Your task to perform on an android device: visit the assistant section in the google photos Image 0: 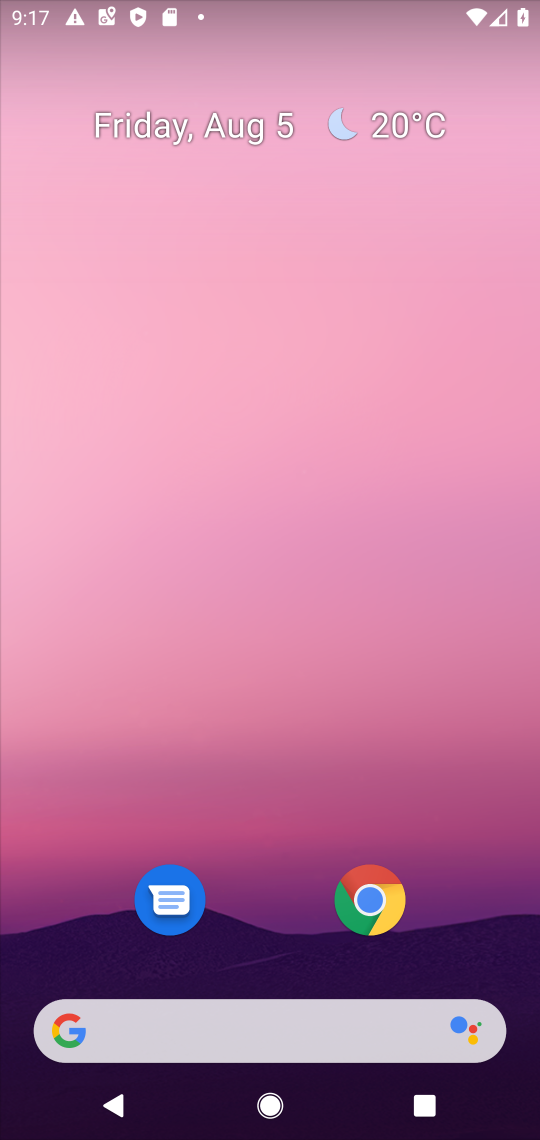
Step 0: press home button
Your task to perform on an android device: visit the assistant section in the google photos Image 1: 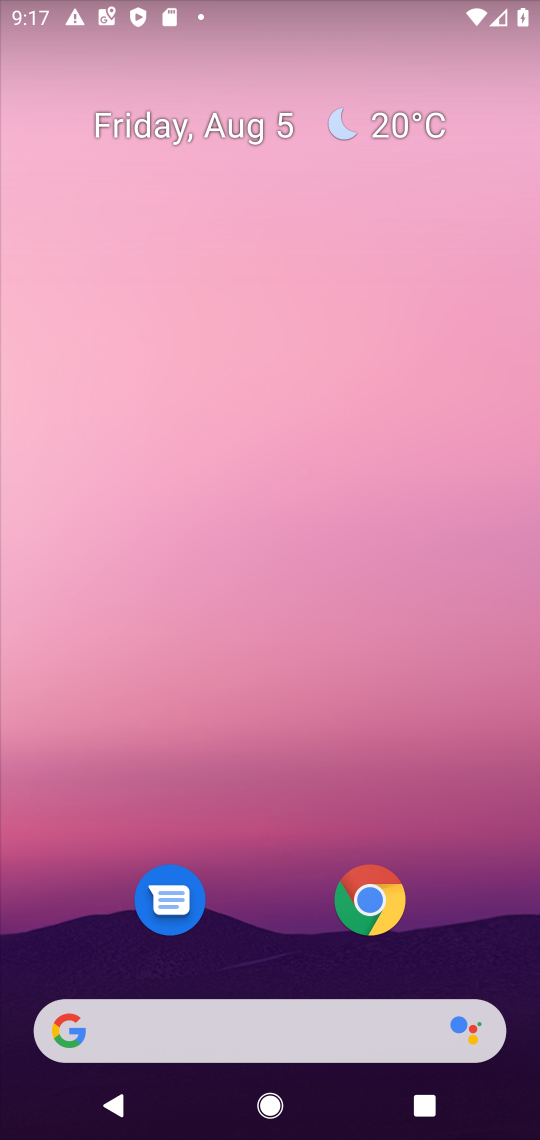
Step 1: drag from (230, 905) to (413, 555)
Your task to perform on an android device: visit the assistant section in the google photos Image 2: 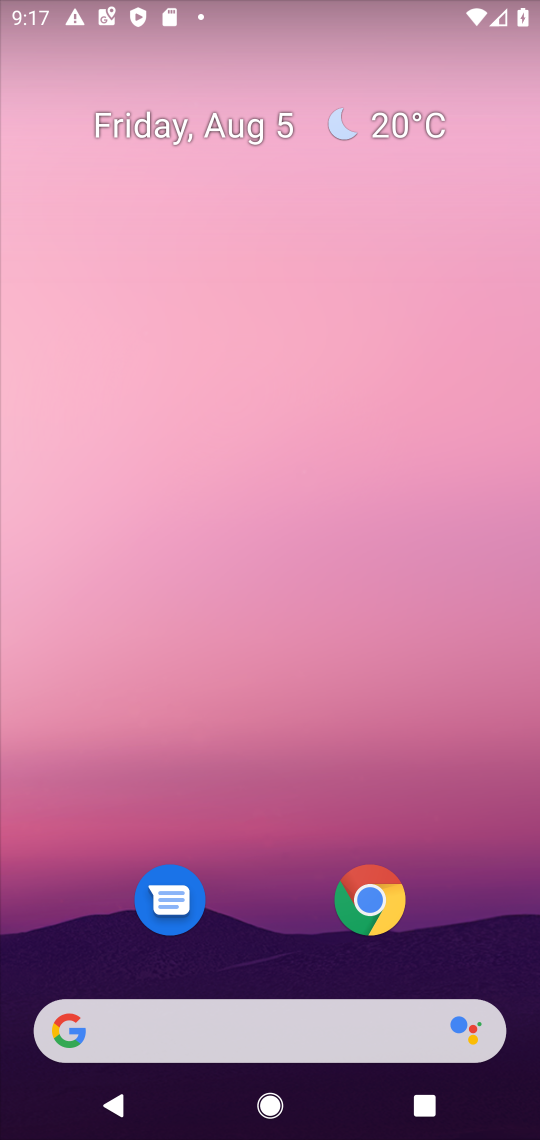
Step 2: drag from (487, 1009) to (416, 328)
Your task to perform on an android device: visit the assistant section in the google photos Image 3: 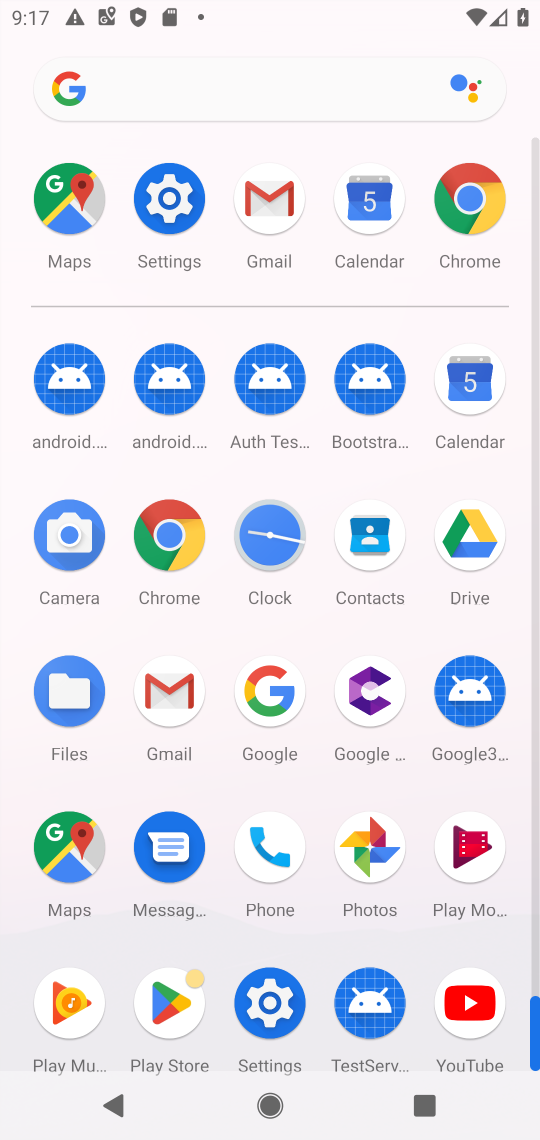
Step 3: click (353, 869)
Your task to perform on an android device: visit the assistant section in the google photos Image 4: 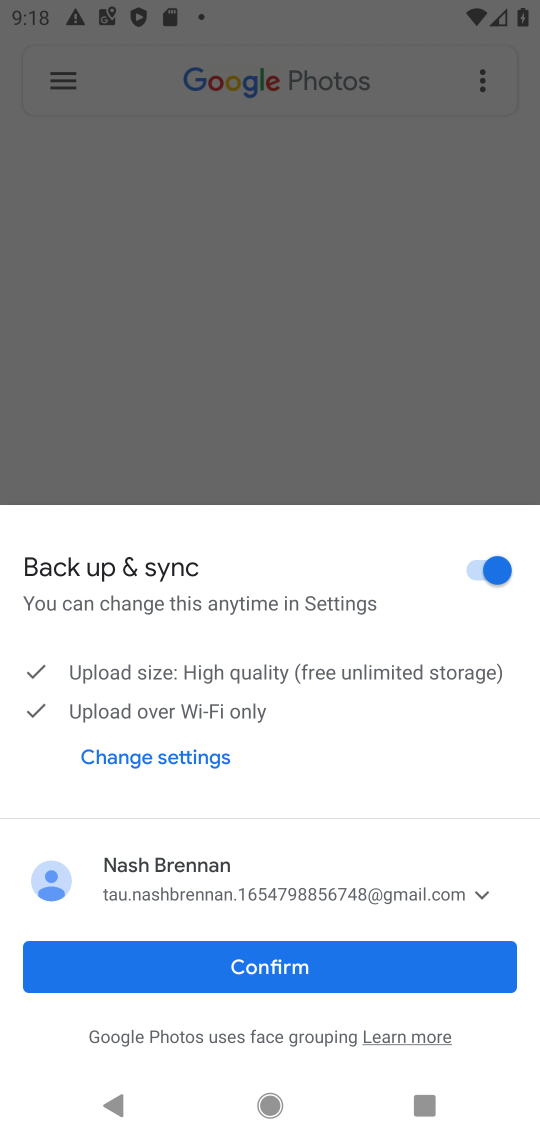
Step 4: click (227, 966)
Your task to perform on an android device: visit the assistant section in the google photos Image 5: 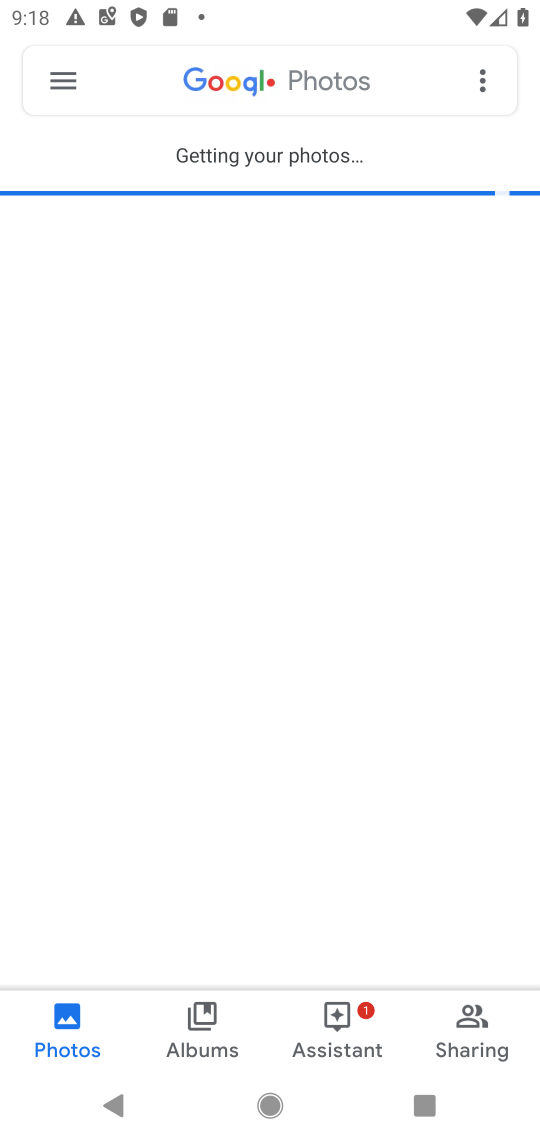
Step 5: click (335, 1014)
Your task to perform on an android device: visit the assistant section in the google photos Image 6: 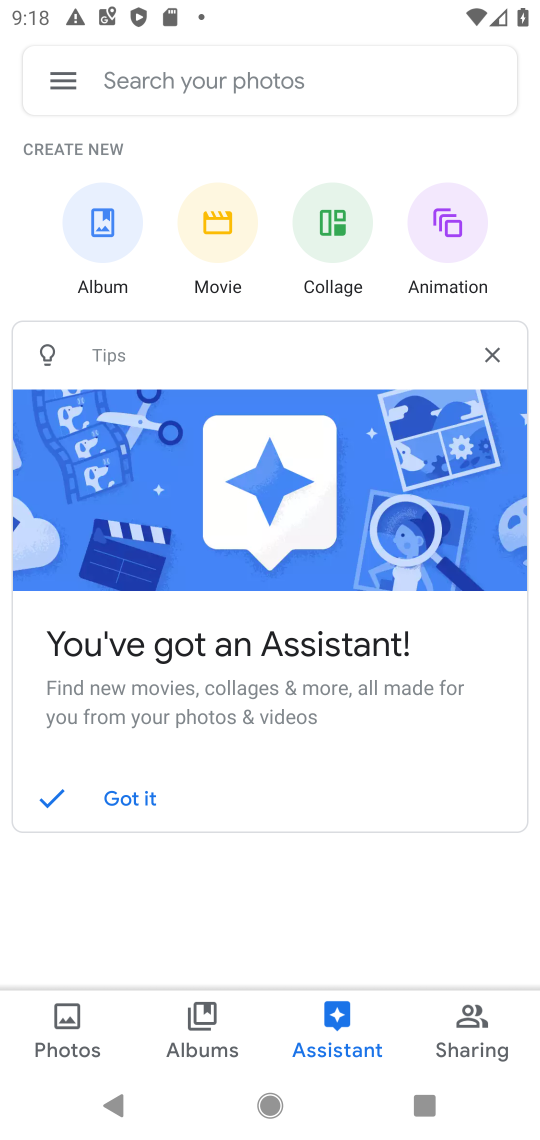
Step 6: task complete